Your task to perform on an android device: change notifications settings Image 0: 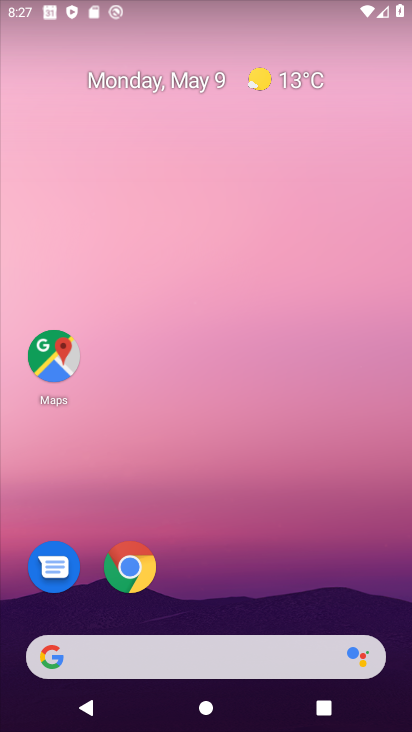
Step 0: drag from (246, 508) to (249, 30)
Your task to perform on an android device: change notifications settings Image 1: 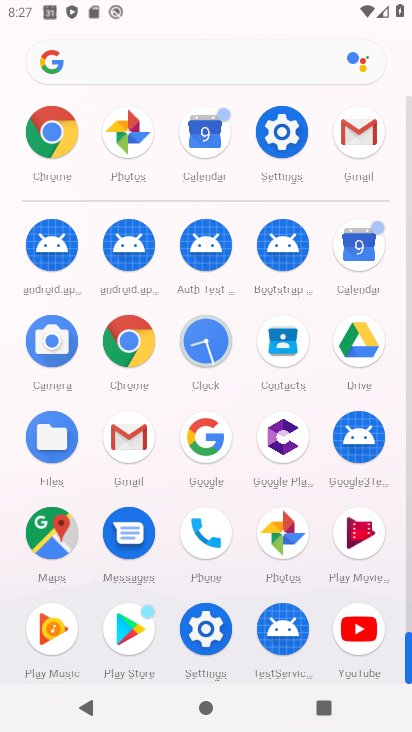
Step 1: click (284, 137)
Your task to perform on an android device: change notifications settings Image 2: 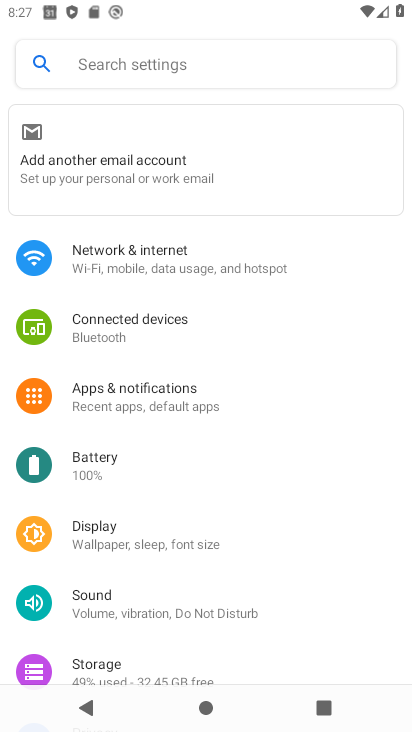
Step 2: click (164, 398)
Your task to perform on an android device: change notifications settings Image 3: 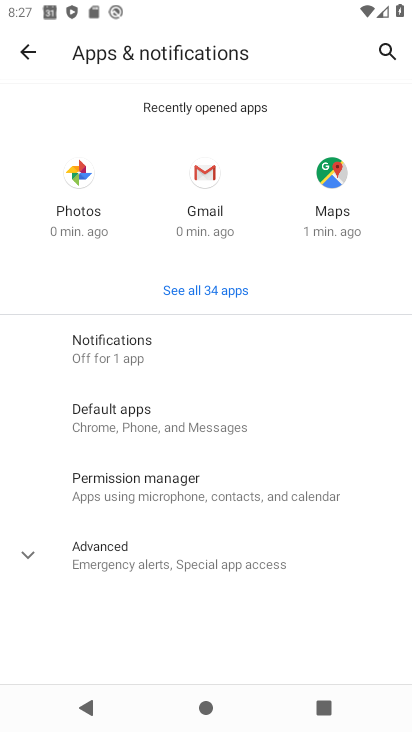
Step 3: click (112, 343)
Your task to perform on an android device: change notifications settings Image 4: 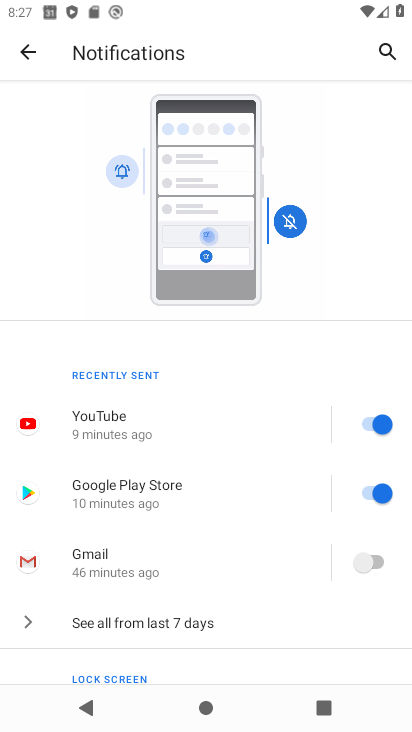
Step 4: drag from (234, 500) to (278, 208)
Your task to perform on an android device: change notifications settings Image 5: 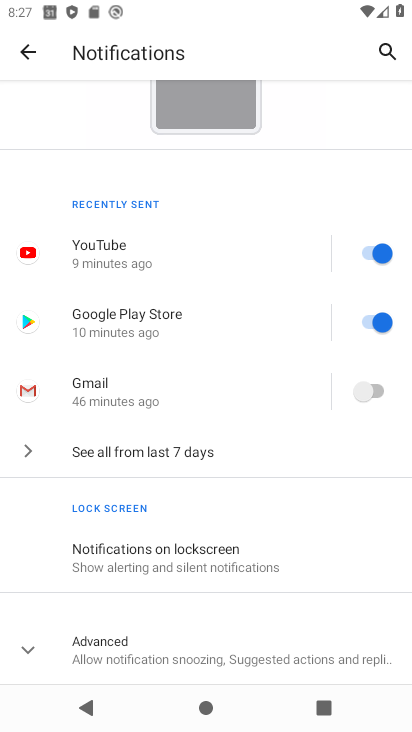
Step 5: click (196, 444)
Your task to perform on an android device: change notifications settings Image 6: 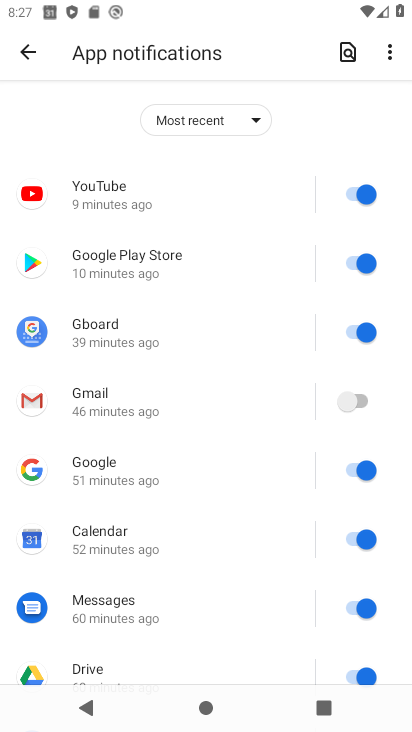
Step 6: click (358, 190)
Your task to perform on an android device: change notifications settings Image 7: 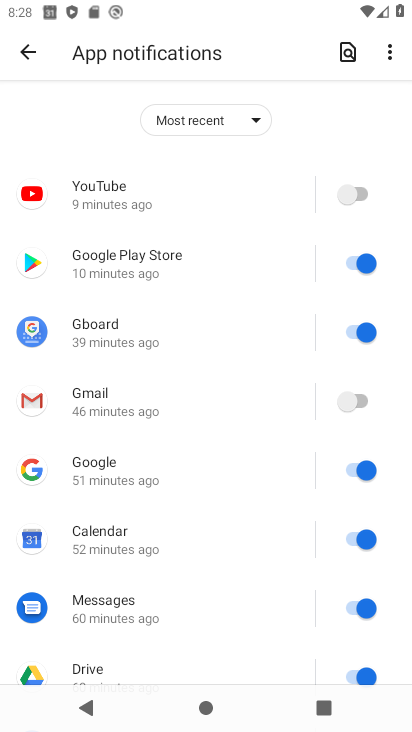
Step 7: click (354, 260)
Your task to perform on an android device: change notifications settings Image 8: 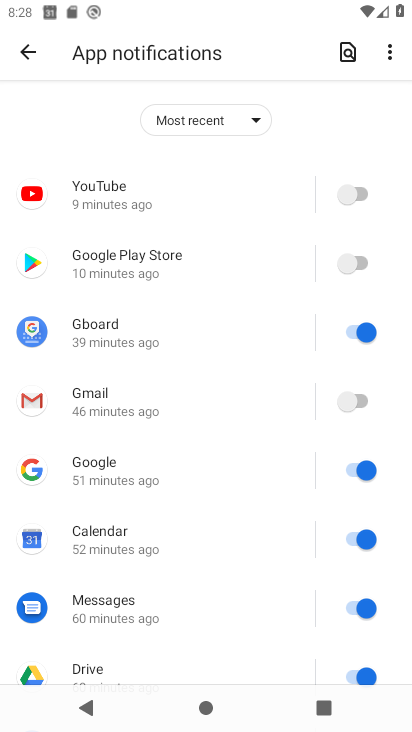
Step 8: click (362, 333)
Your task to perform on an android device: change notifications settings Image 9: 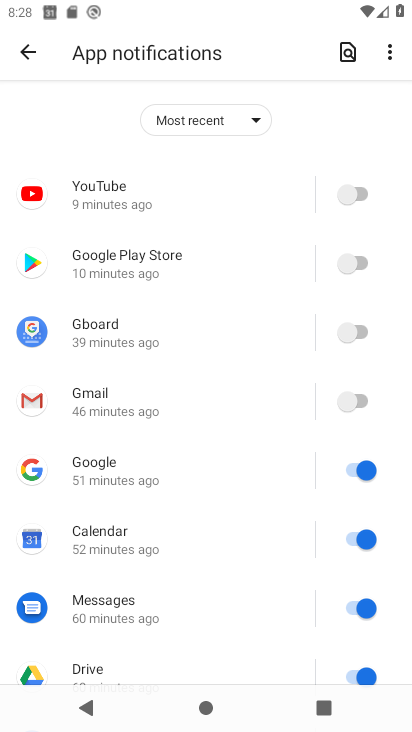
Step 9: click (358, 396)
Your task to perform on an android device: change notifications settings Image 10: 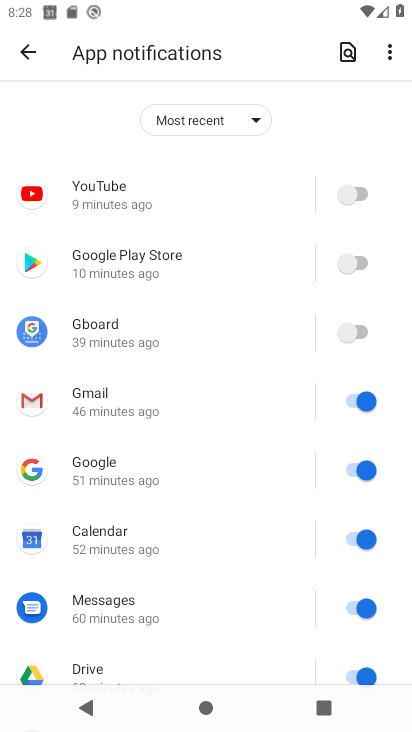
Step 10: click (362, 459)
Your task to perform on an android device: change notifications settings Image 11: 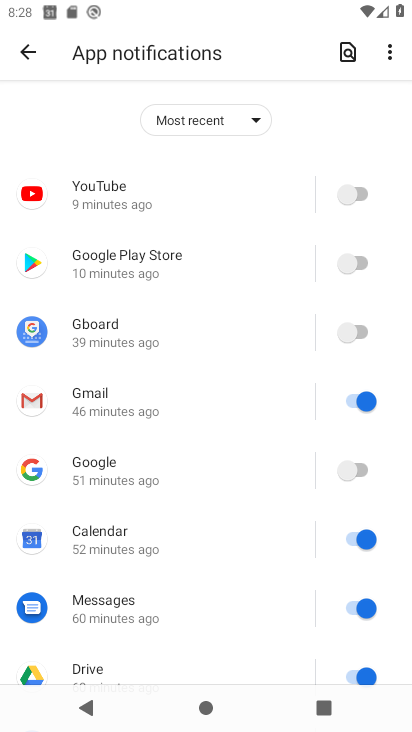
Step 11: click (360, 530)
Your task to perform on an android device: change notifications settings Image 12: 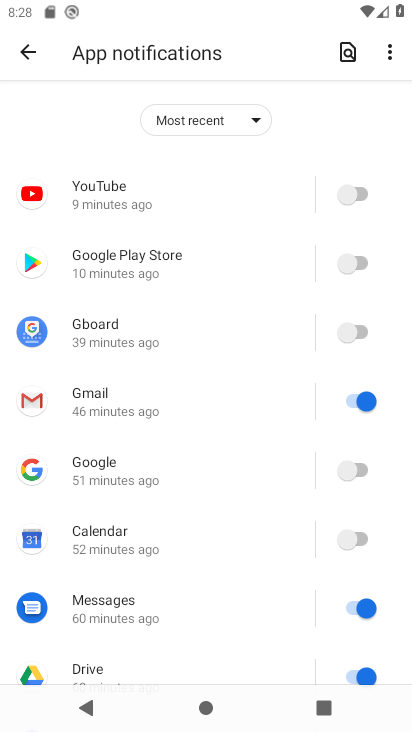
Step 12: click (359, 602)
Your task to perform on an android device: change notifications settings Image 13: 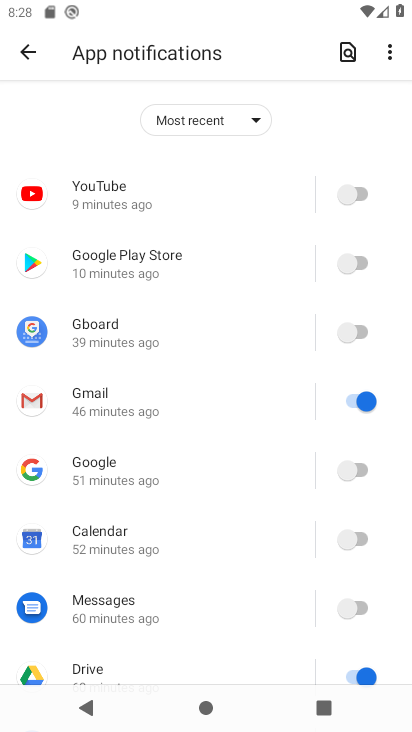
Step 13: click (364, 665)
Your task to perform on an android device: change notifications settings Image 14: 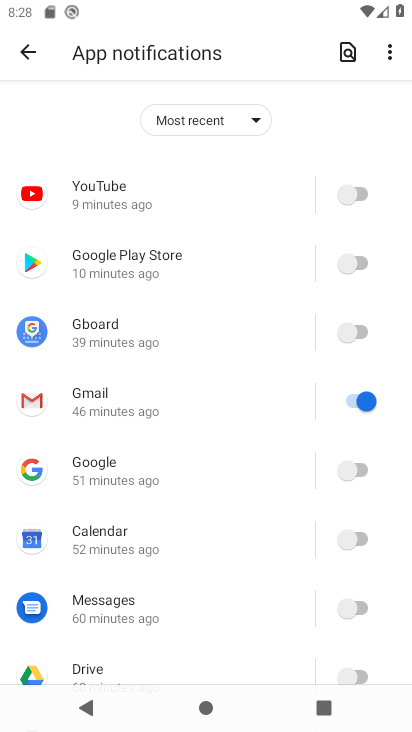
Step 14: drag from (249, 589) to (265, 204)
Your task to perform on an android device: change notifications settings Image 15: 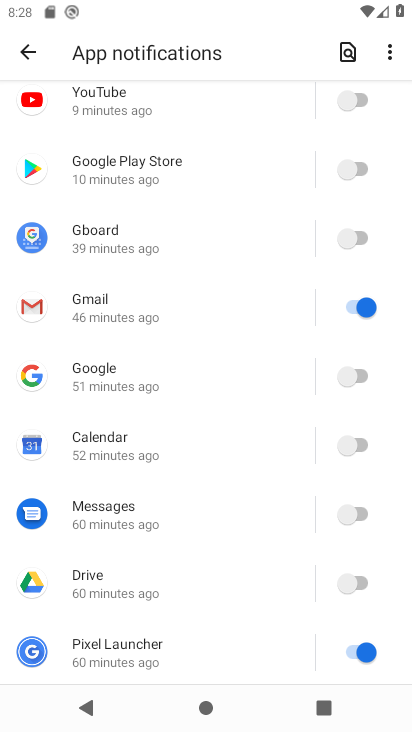
Step 15: click (344, 644)
Your task to perform on an android device: change notifications settings Image 16: 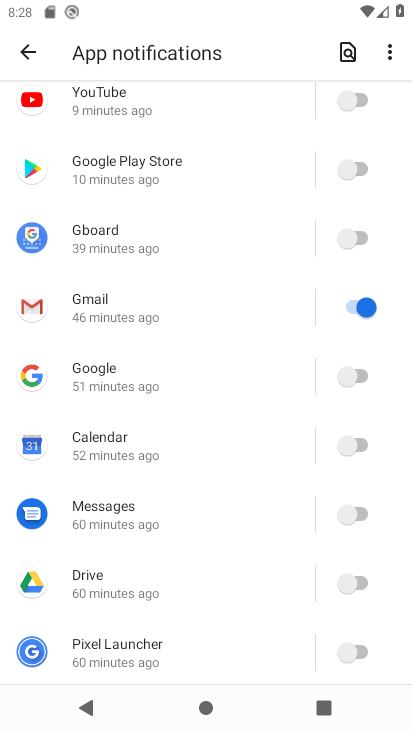
Step 16: task complete